Your task to perform on an android device: Check the weather Image 0: 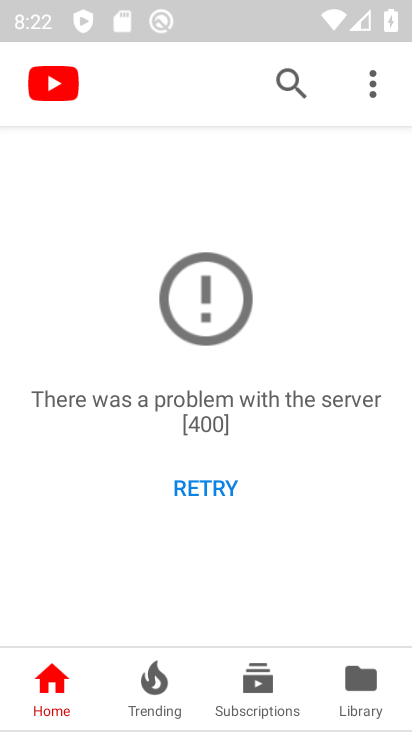
Step 0: press home button
Your task to perform on an android device: Check the weather Image 1: 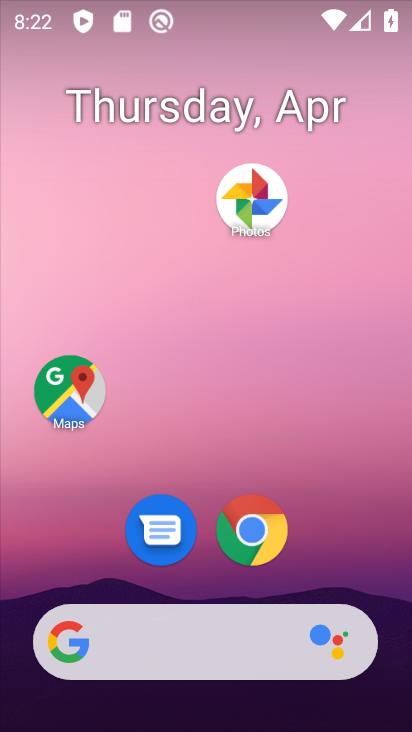
Step 1: drag from (356, 522) to (306, 112)
Your task to perform on an android device: Check the weather Image 2: 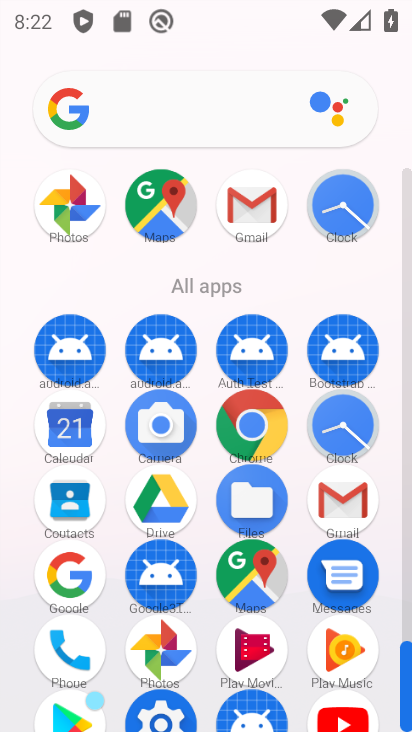
Step 2: click (267, 408)
Your task to perform on an android device: Check the weather Image 3: 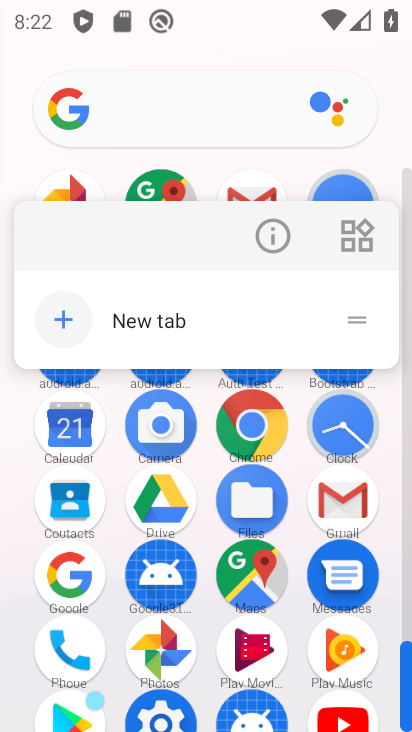
Step 3: click (255, 438)
Your task to perform on an android device: Check the weather Image 4: 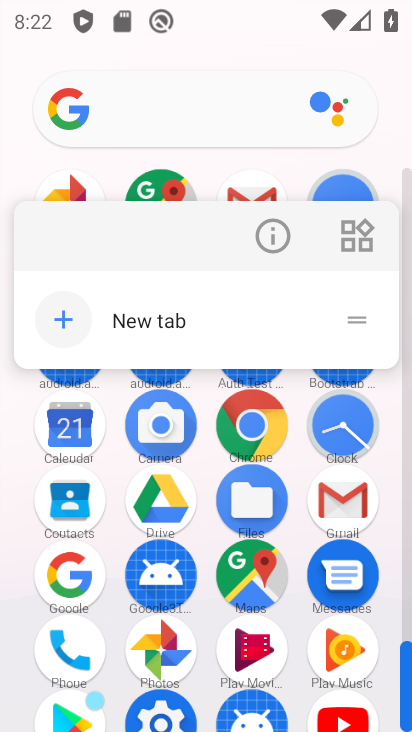
Step 4: click (250, 417)
Your task to perform on an android device: Check the weather Image 5: 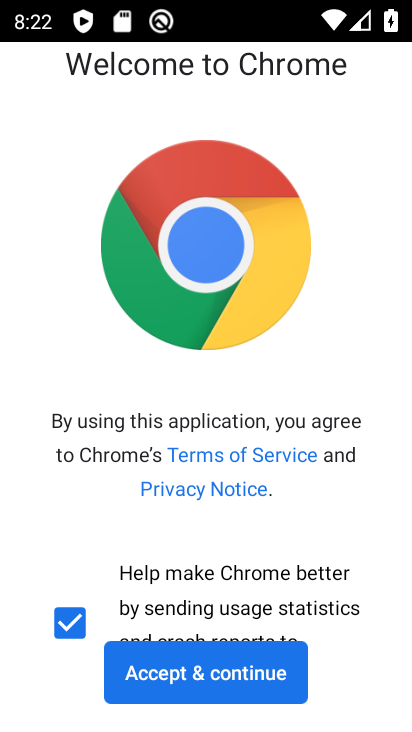
Step 5: click (222, 669)
Your task to perform on an android device: Check the weather Image 6: 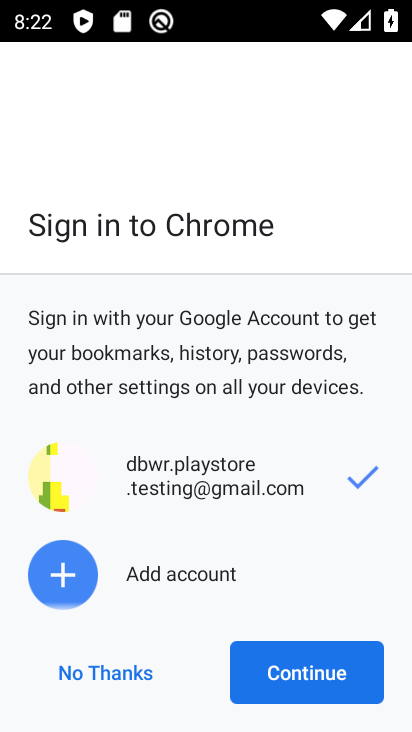
Step 6: click (358, 660)
Your task to perform on an android device: Check the weather Image 7: 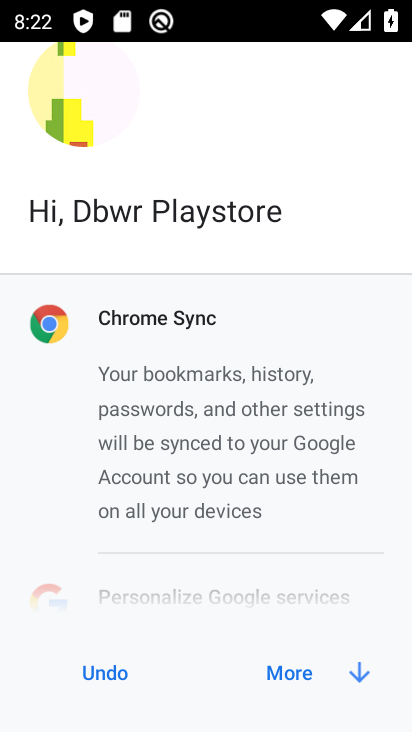
Step 7: click (320, 667)
Your task to perform on an android device: Check the weather Image 8: 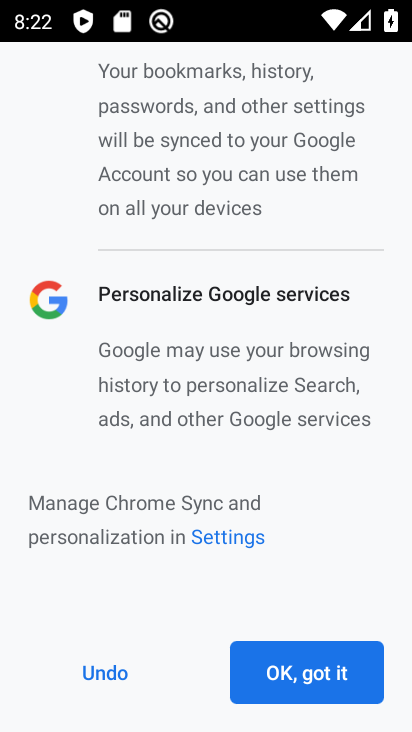
Step 8: click (320, 667)
Your task to perform on an android device: Check the weather Image 9: 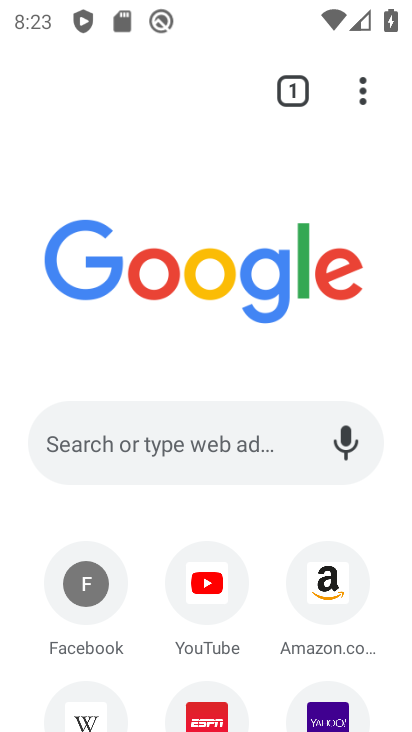
Step 9: type "weather"
Your task to perform on an android device: Check the weather Image 10: 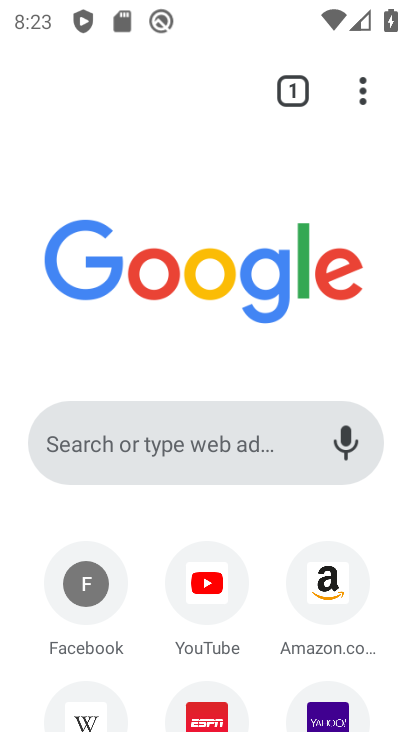
Step 10: type ""
Your task to perform on an android device: Check the weather Image 11: 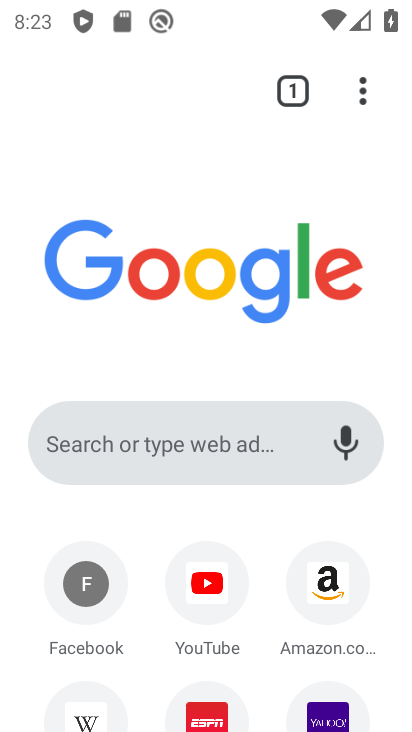
Step 11: click (244, 429)
Your task to perform on an android device: Check the weather Image 12: 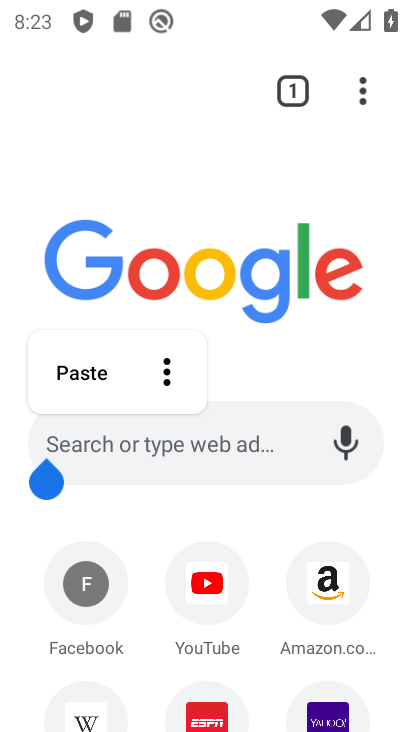
Step 12: click (263, 440)
Your task to perform on an android device: Check the weather Image 13: 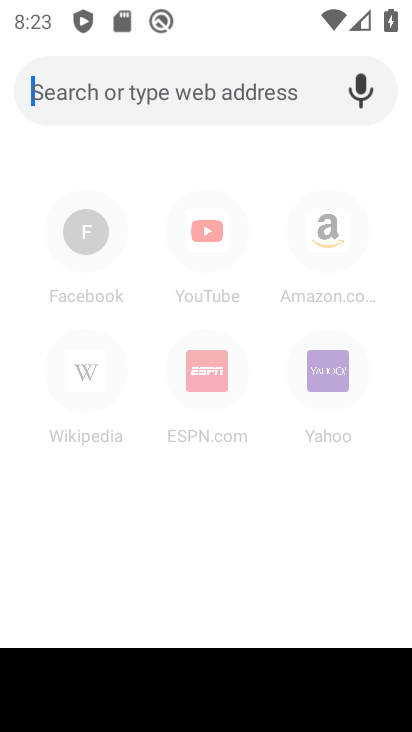
Step 13: type "weather"
Your task to perform on an android device: Check the weather Image 14: 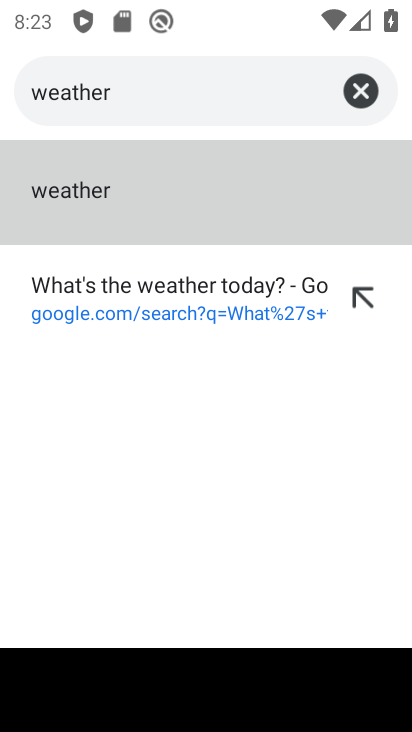
Step 14: click (85, 195)
Your task to perform on an android device: Check the weather Image 15: 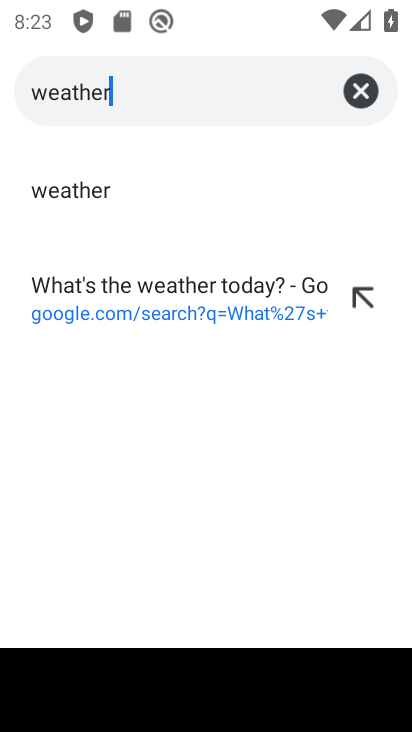
Step 15: click (85, 194)
Your task to perform on an android device: Check the weather Image 16: 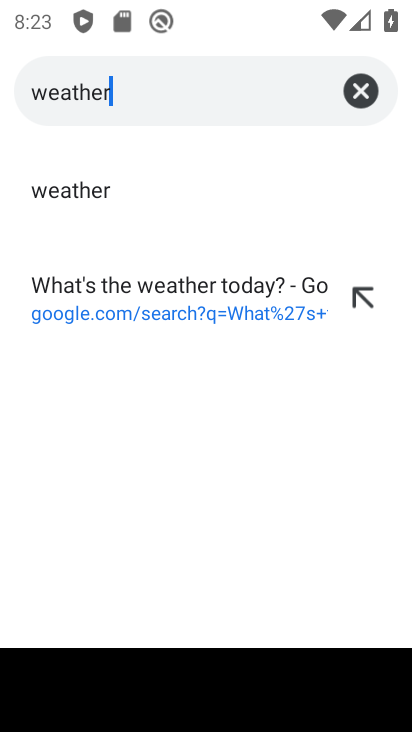
Step 16: click (221, 87)
Your task to perform on an android device: Check the weather Image 17: 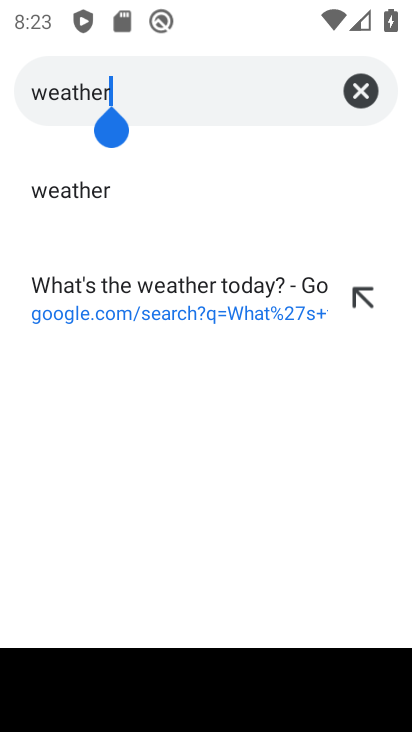
Step 17: press enter
Your task to perform on an android device: Check the weather Image 18: 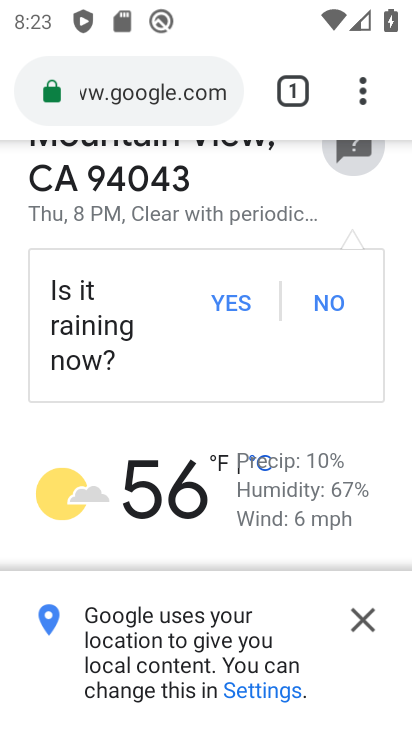
Step 18: task complete